Your task to perform on an android device: Open display settings Image 0: 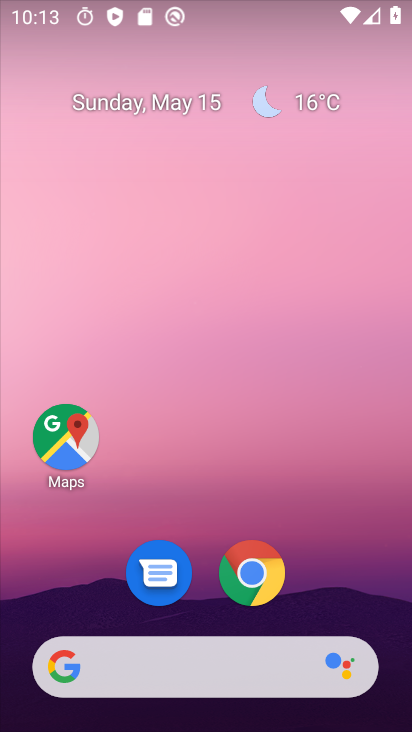
Step 0: drag from (294, 620) to (213, 204)
Your task to perform on an android device: Open display settings Image 1: 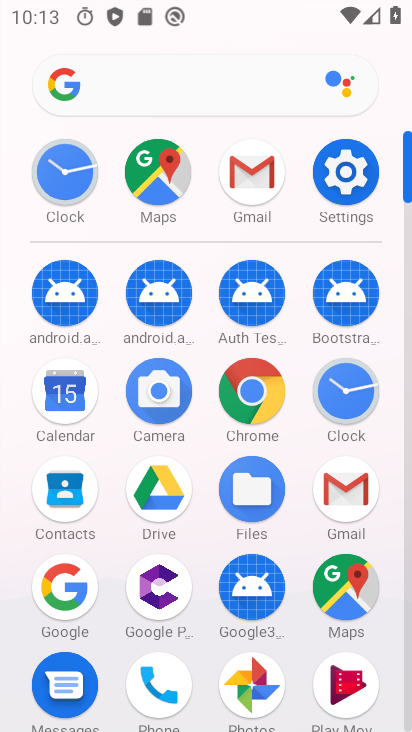
Step 1: click (351, 177)
Your task to perform on an android device: Open display settings Image 2: 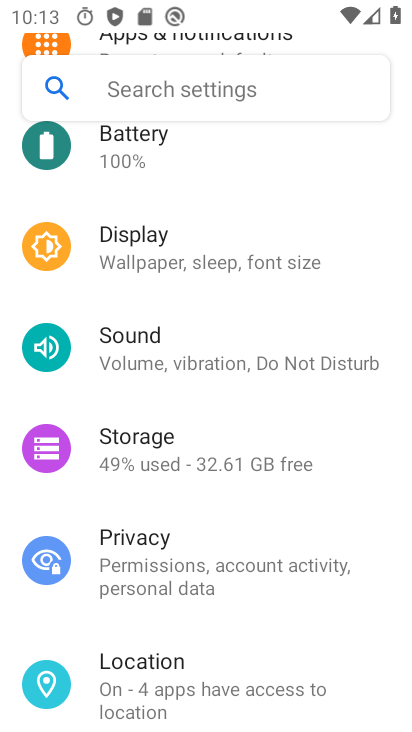
Step 2: click (222, 278)
Your task to perform on an android device: Open display settings Image 3: 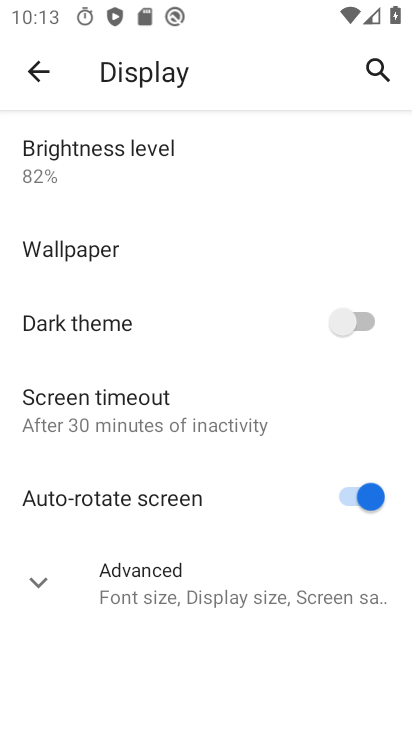
Step 3: task complete